Your task to perform on an android device: open chrome and create a bookmark for the current page Image 0: 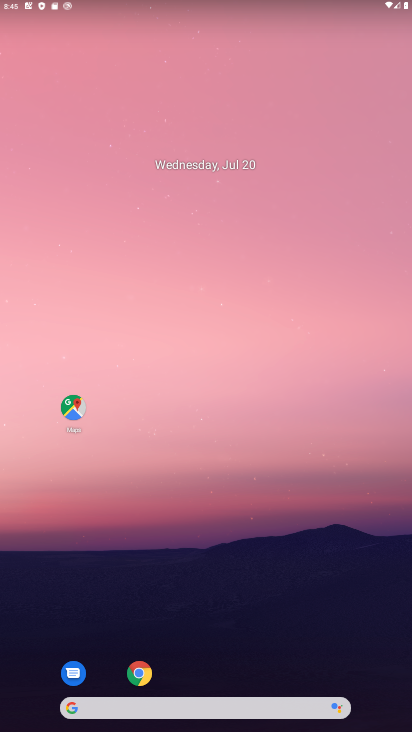
Step 0: drag from (192, 658) to (255, 362)
Your task to perform on an android device: open chrome and create a bookmark for the current page Image 1: 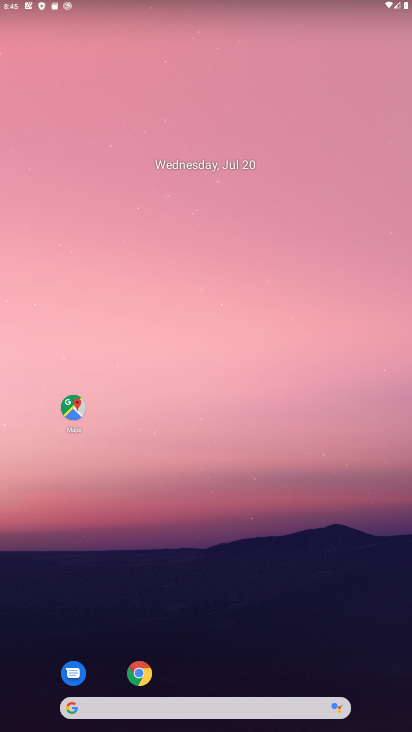
Step 1: drag from (211, 665) to (261, 308)
Your task to perform on an android device: open chrome and create a bookmark for the current page Image 2: 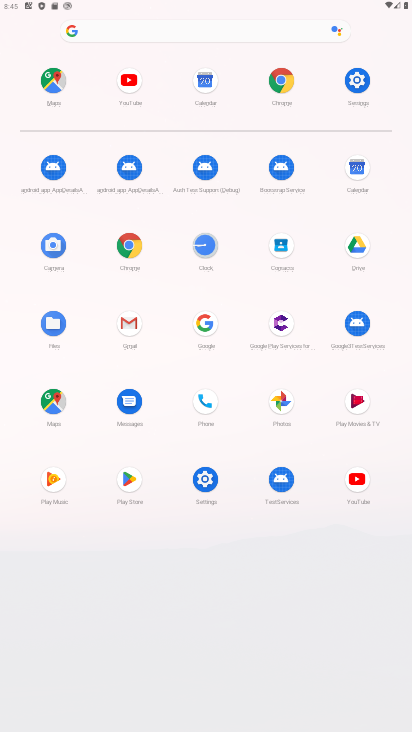
Step 2: click (119, 242)
Your task to perform on an android device: open chrome and create a bookmark for the current page Image 3: 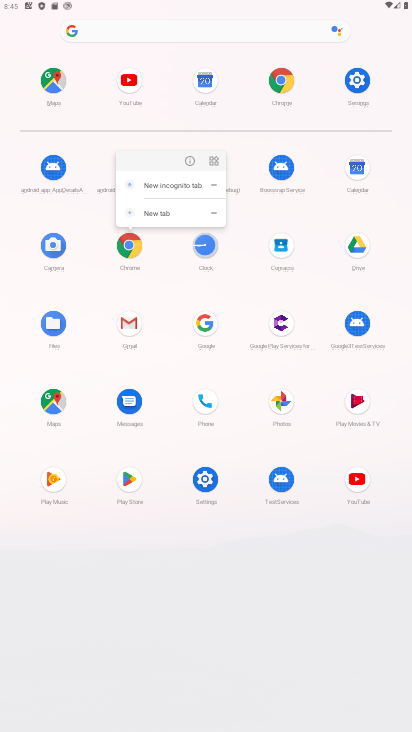
Step 3: click (191, 156)
Your task to perform on an android device: open chrome and create a bookmark for the current page Image 4: 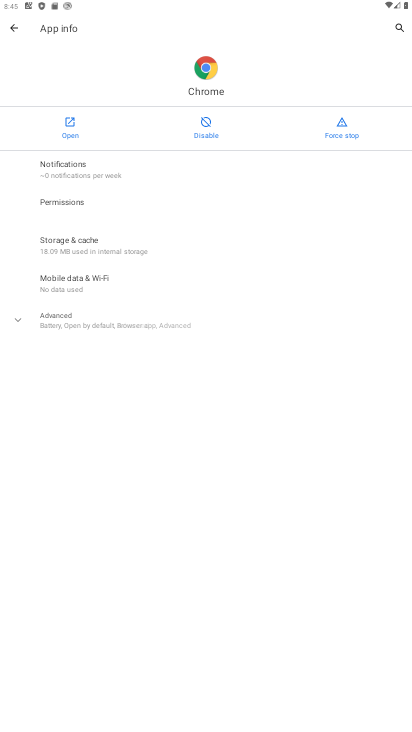
Step 4: drag from (202, 554) to (229, 257)
Your task to perform on an android device: open chrome and create a bookmark for the current page Image 5: 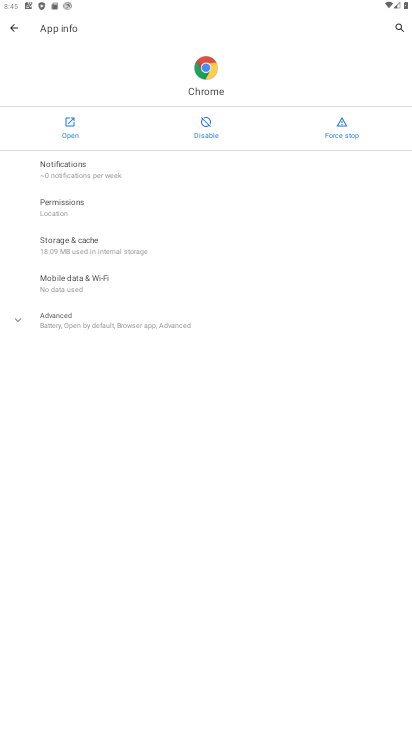
Step 5: click (75, 116)
Your task to perform on an android device: open chrome and create a bookmark for the current page Image 6: 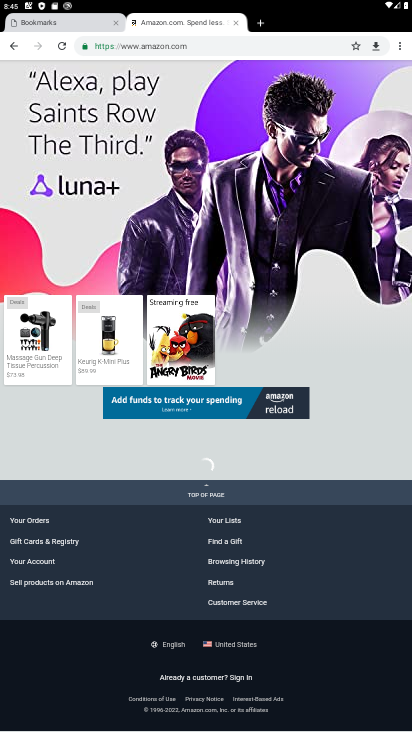
Step 6: drag from (251, 164) to (314, 611)
Your task to perform on an android device: open chrome and create a bookmark for the current page Image 7: 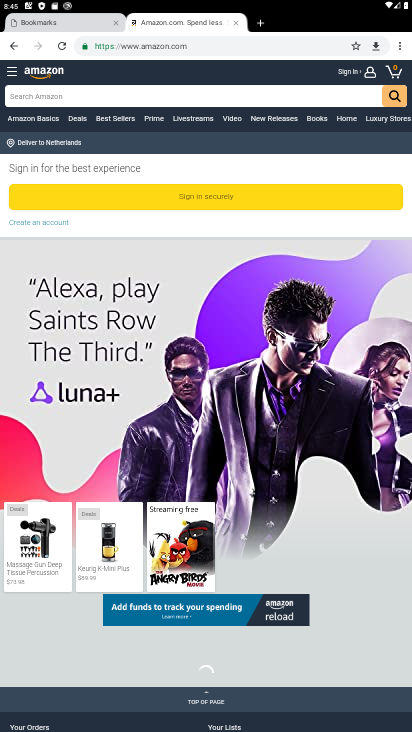
Step 7: drag from (406, 39) to (340, 94)
Your task to perform on an android device: open chrome and create a bookmark for the current page Image 8: 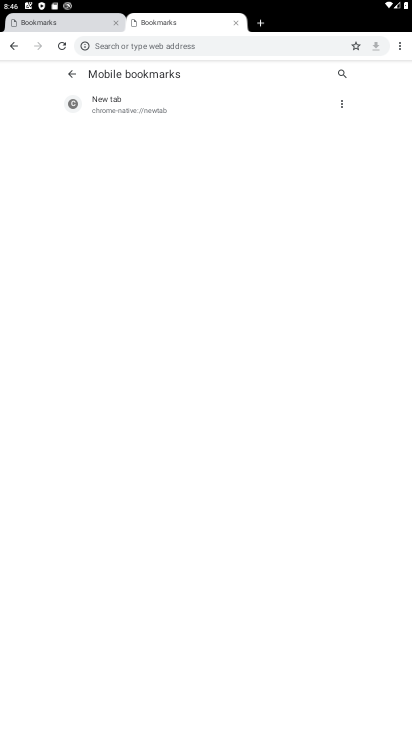
Step 8: drag from (211, 580) to (218, 216)
Your task to perform on an android device: open chrome and create a bookmark for the current page Image 9: 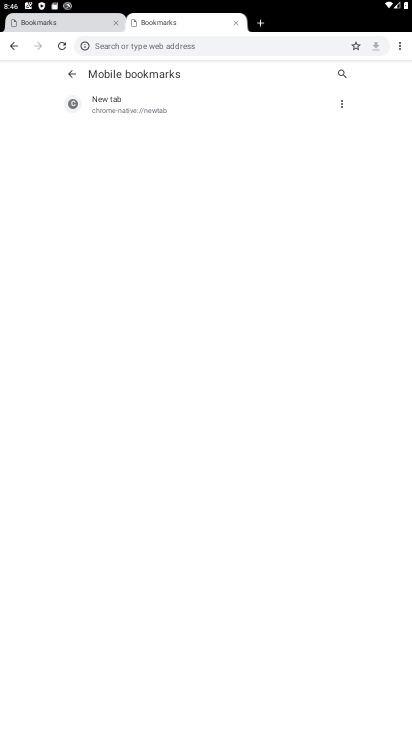
Step 9: drag from (228, 190) to (263, 452)
Your task to perform on an android device: open chrome and create a bookmark for the current page Image 10: 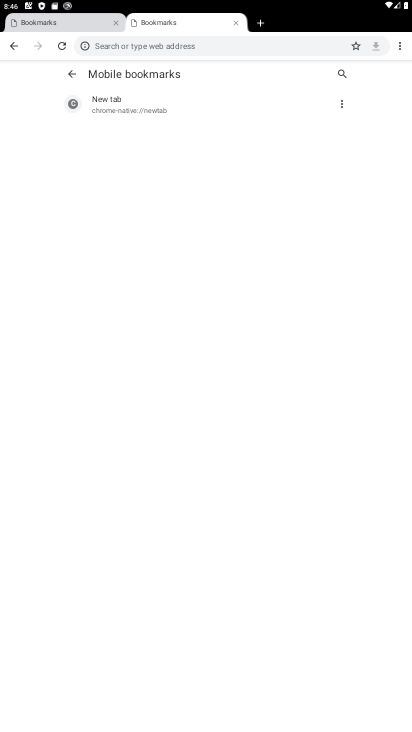
Step 10: click (346, 47)
Your task to perform on an android device: open chrome and create a bookmark for the current page Image 11: 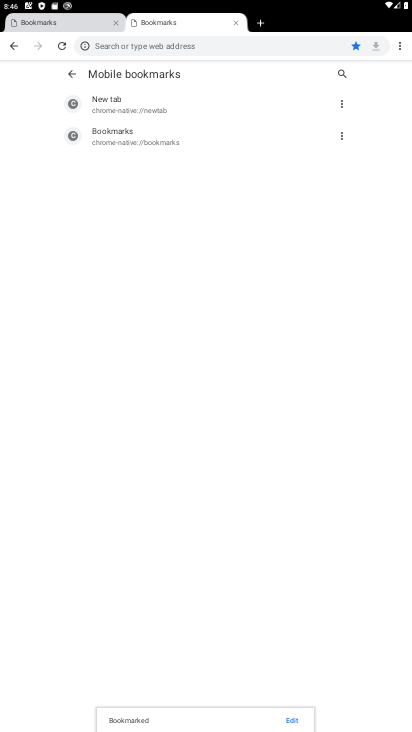
Step 11: task complete